Your task to perform on an android device: change notifications settings Image 0: 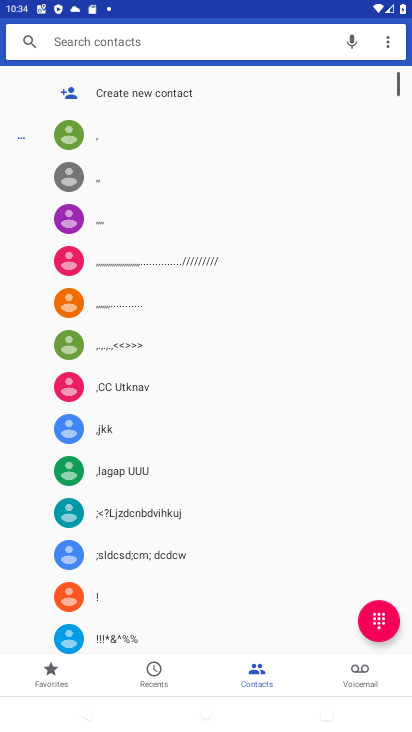
Step 0: press home button
Your task to perform on an android device: change notifications settings Image 1: 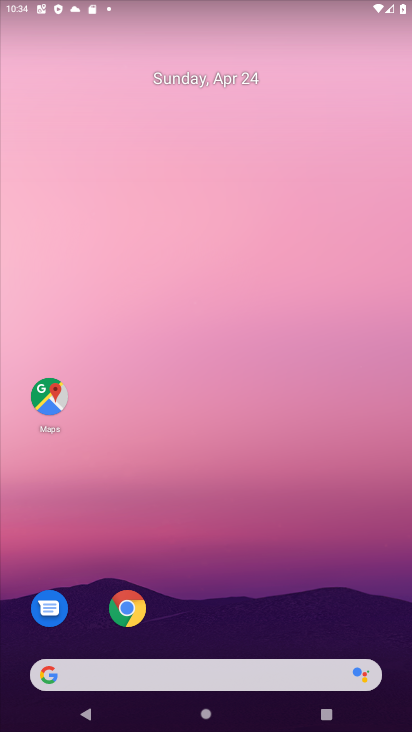
Step 1: drag from (241, 697) to (320, 75)
Your task to perform on an android device: change notifications settings Image 2: 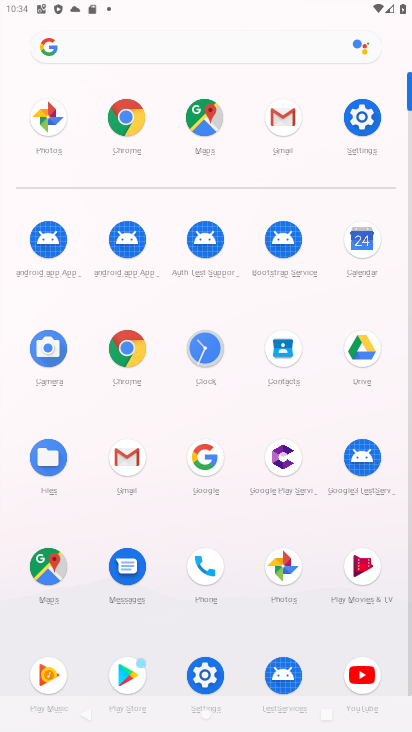
Step 2: click (356, 147)
Your task to perform on an android device: change notifications settings Image 3: 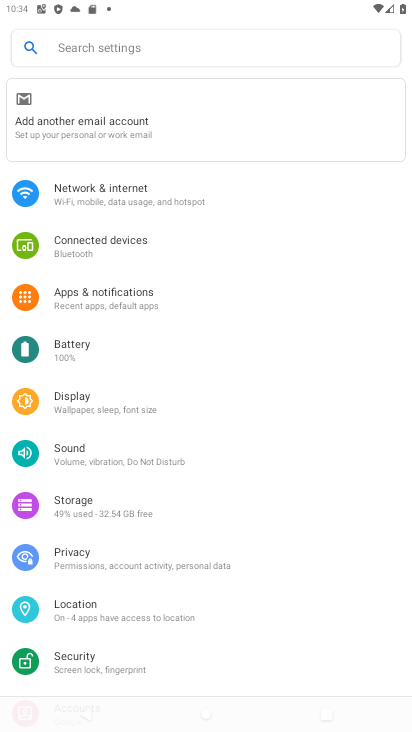
Step 3: click (141, 55)
Your task to perform on an android device: change notifications settings Image 4: 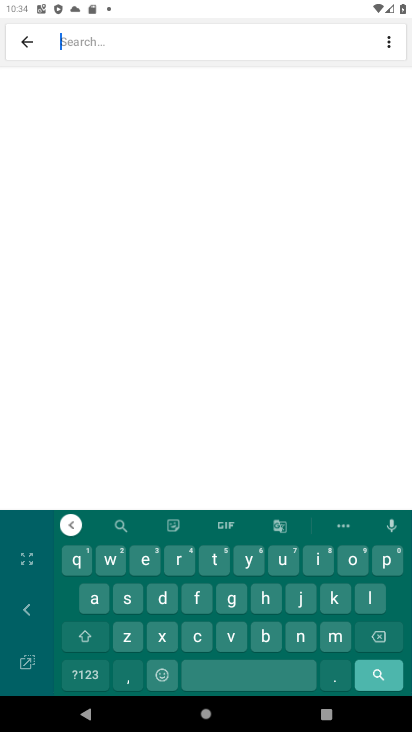
Step 4: click (31, 553)
Your task to perform on an android device: change notifications settings Image 5: 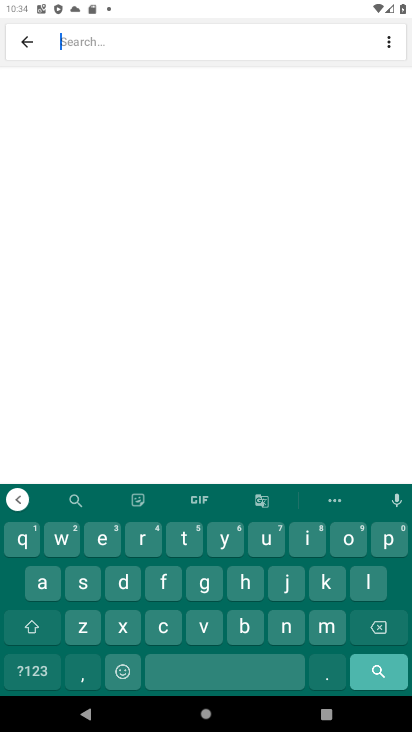
Step 5: click (289, 634)
Your task to perform on an android device: change notifications settings Image 6: 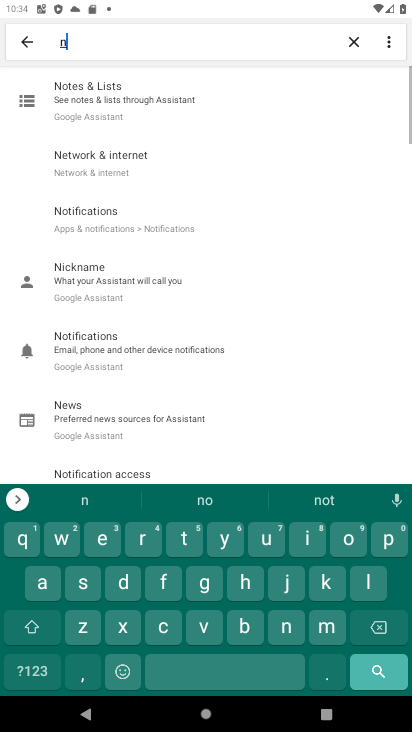
Step 6: click (355, 541)
Your task to perform on an android device: change notifications settings Image 7: 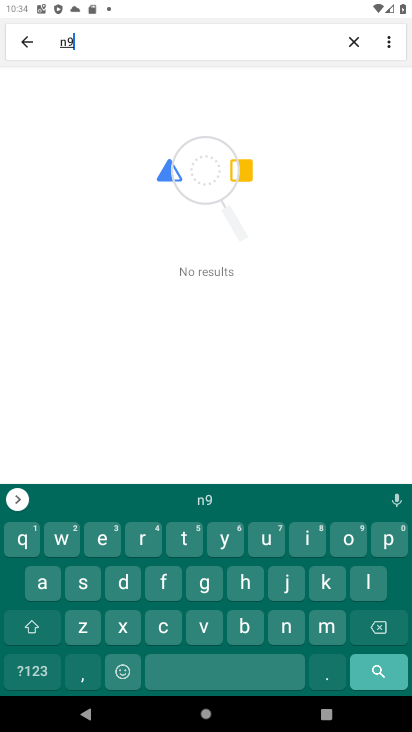
Step 7: click (369, 635)
Your task to perform on an android device: change notifications settings Image 8: 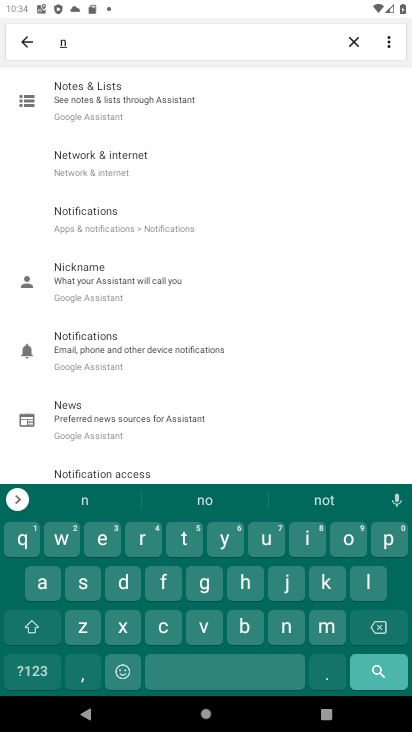
Step 8: click (348, 549)
Your task to perform on an android device: change notifications settings Image 9: 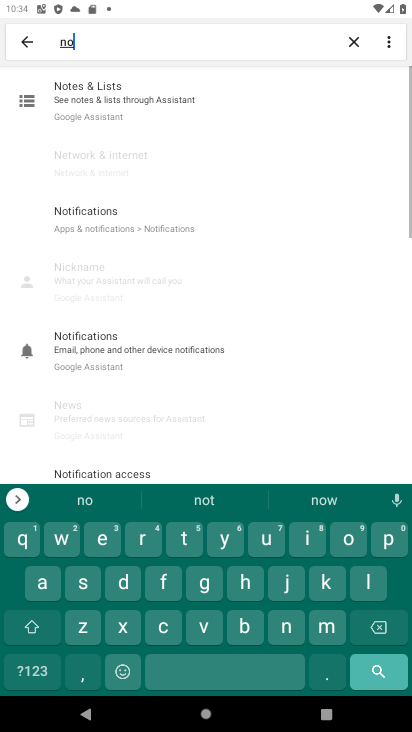
Step 9: click (338, 553)
Your task to perform on an android device: change notifications settings Image 10: 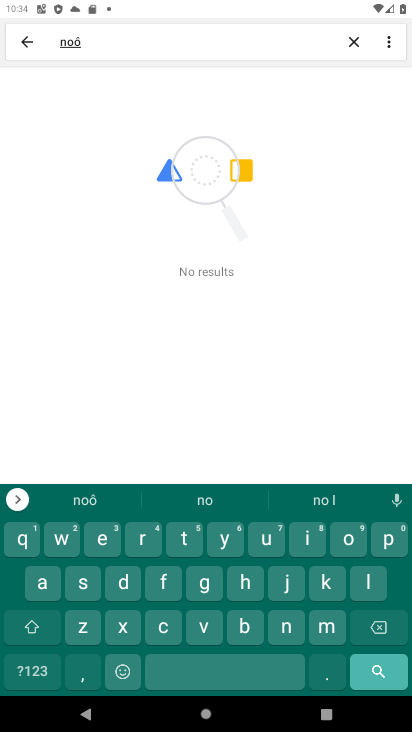
Step 10: click (377, 629)
Your task to perform on an android device: change notifications settings Image 11: 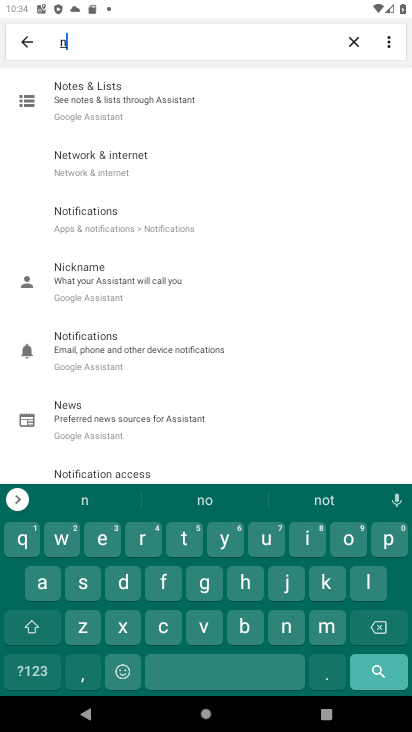
Step 11: click (344, 542)
Your task to perform on an android device: change notifications settings Image 12: 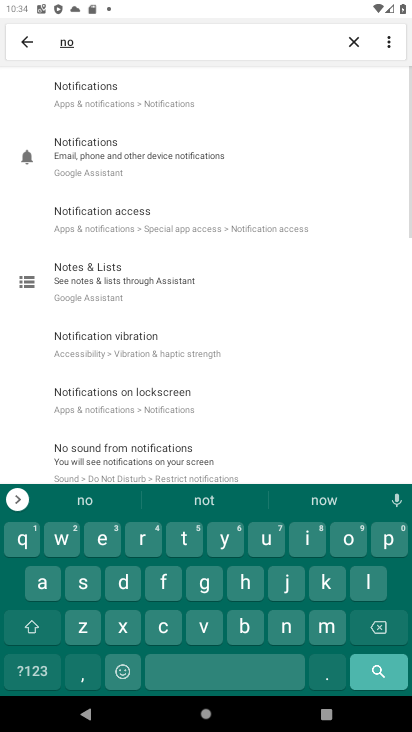
Step 12: click (167, 103)
Your task to perform on an android device: change notifications settings Image 13: 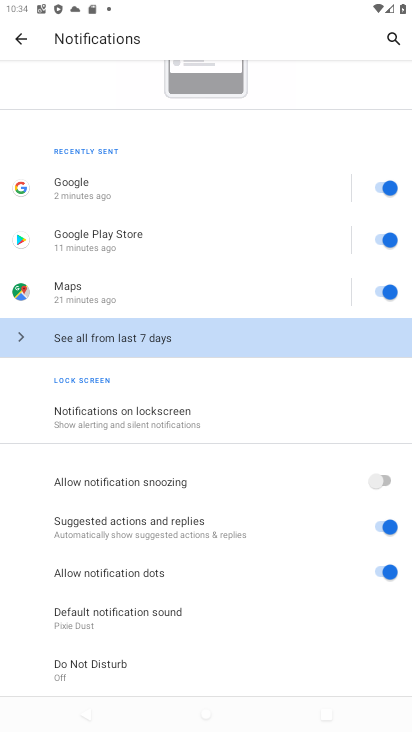
Step 13: click (139, 422)
Your task to perform on an android device: change notifications settings Image 14: 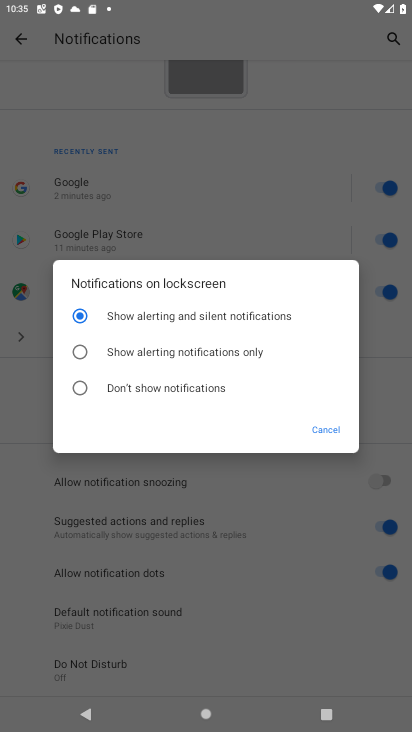
Step 14: task complete